Your task to perform on an android device: Go to sound settings Image 0: 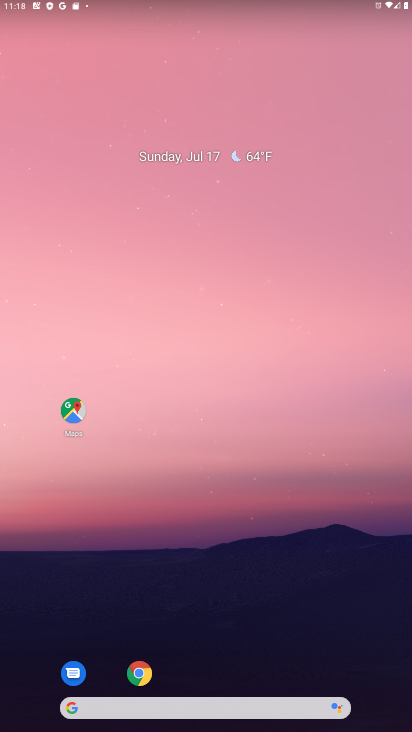
Step 0: drag from (222, 668) to (314, 40)
Your task to perform on an android device: Go to sound settings Image 1: 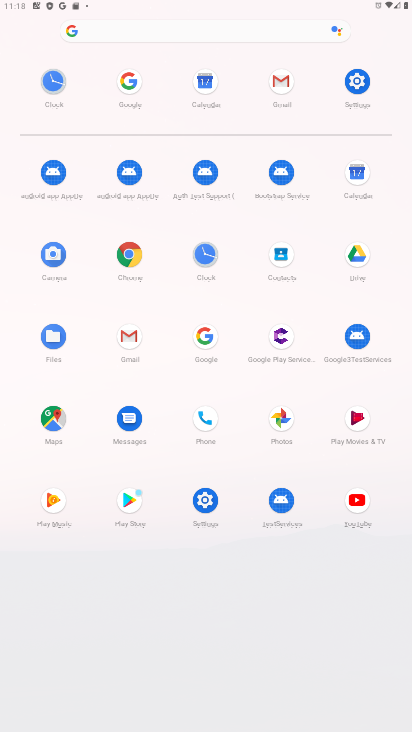
Step 1: click (359, 79)
Your task to perform on an android device: Go to sound settings Image 2: 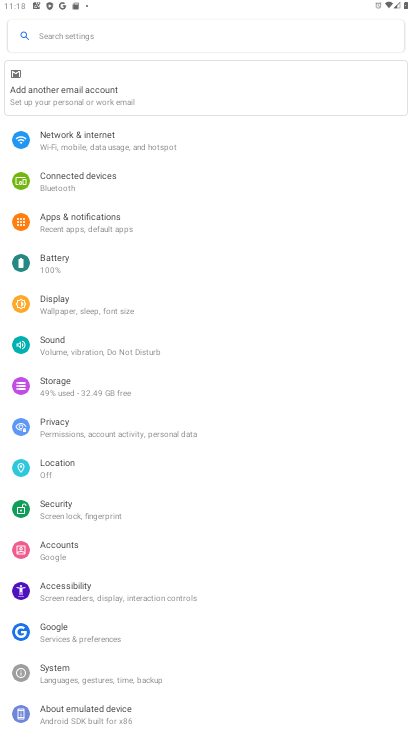
Step 2: click (71, 347)
Your task to perform on an android device: Go to sound settings Image 3: 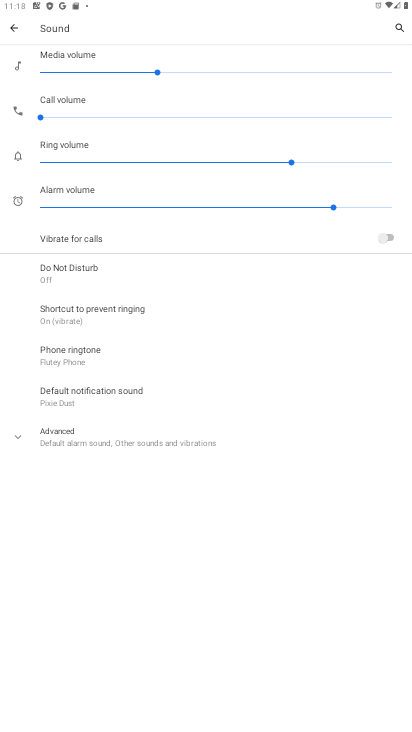
Step 3: task complete